Your task to perform on an android device: turn notification dots off Image 0: 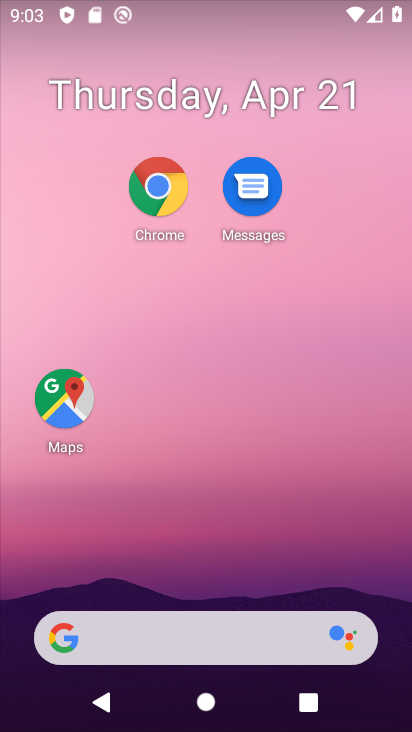
Step 0: drag from (209, 468) to (220, 151)
Your task to perform on an android device: turn notification dots off Image 1: 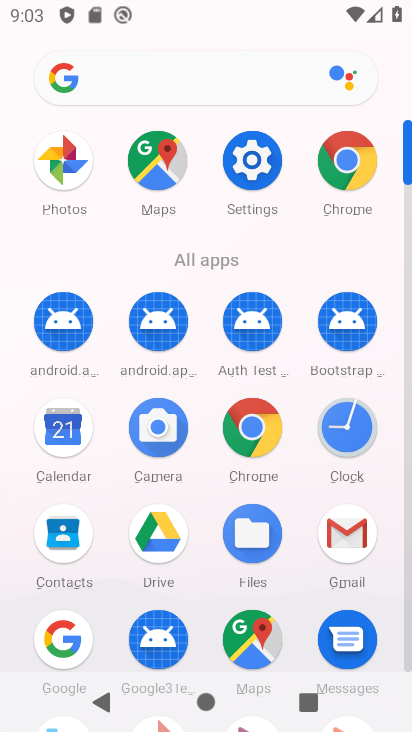
Step 1: click (259, 162)
Your task to perform on an android device: turn notification dots off Image 2: 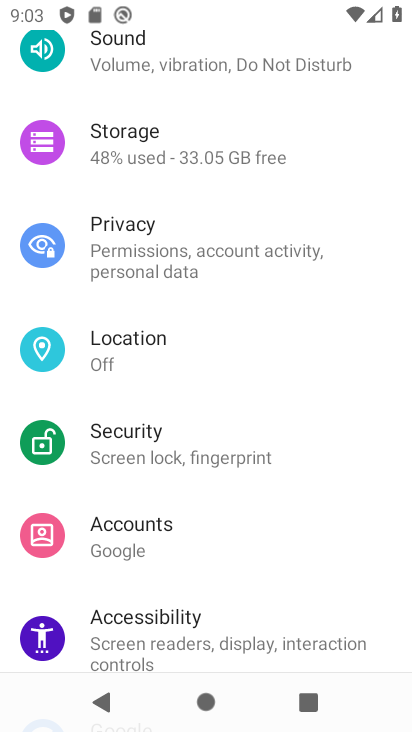
Step 2: drag from (205, 152) to (203, 456)
Your task to perform on an android device: turn notification dots off Image 3: 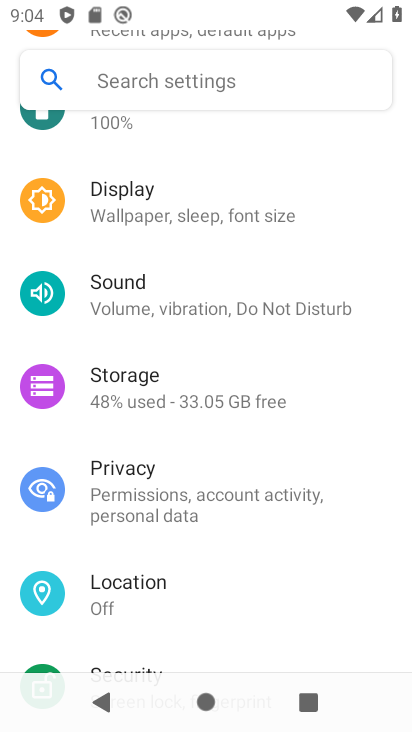
Step 3: drag from (232, 185) to (230, 486)
Your task to perform on an android device: turn notification dots off Image 4: 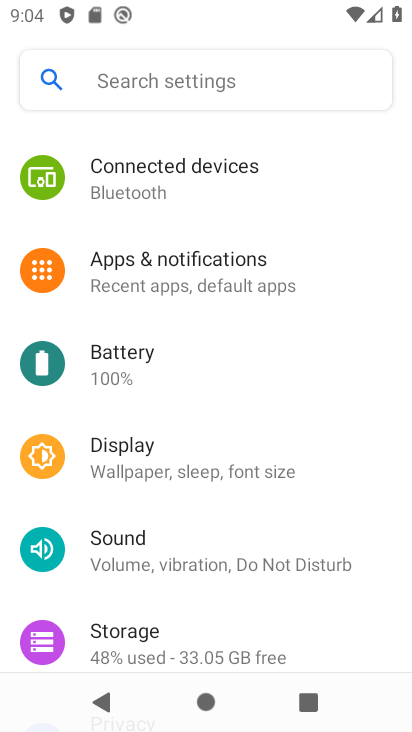
Step 4: click (214, 274)
Your task to perform on an android device: turn notification dots off Image 5: 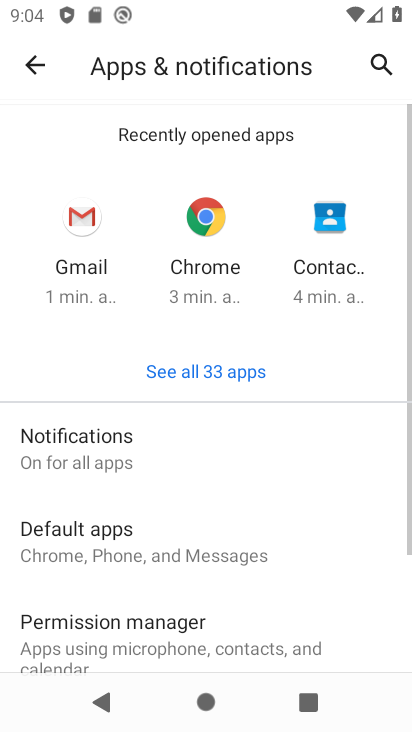
Step 5: click (156, 452)
Your task to perform on an android device: turn notification dots off Image 6: 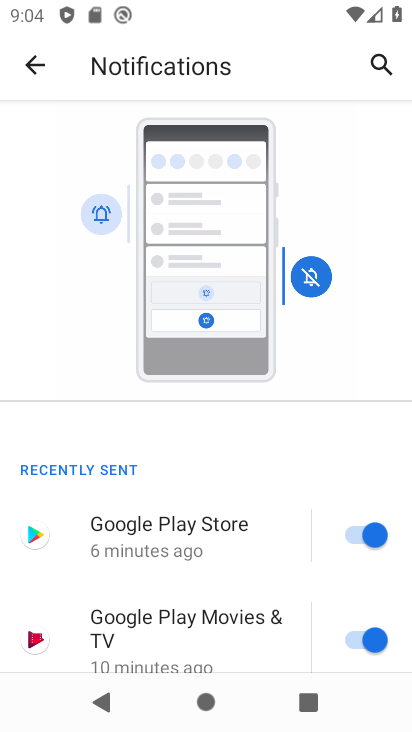
Step 6: drag from (197, 584) to (222, 72)
Your task to perform on an android device: turn notification dots off Image 7: 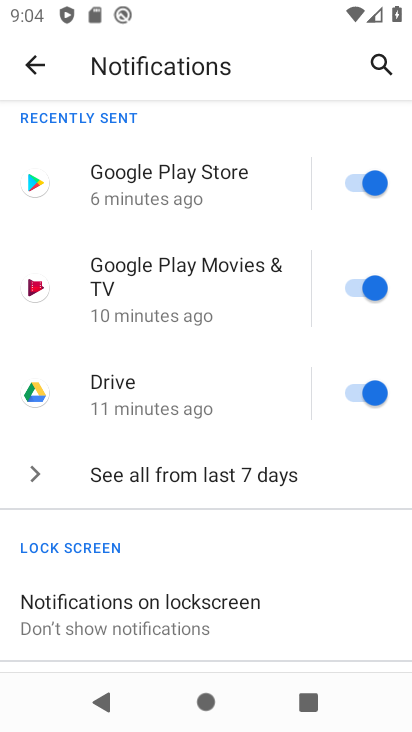
Step 7: drag from (174, 587) to (158, 163)
Your task to perform on an android device: turn notification dots off Image 8: 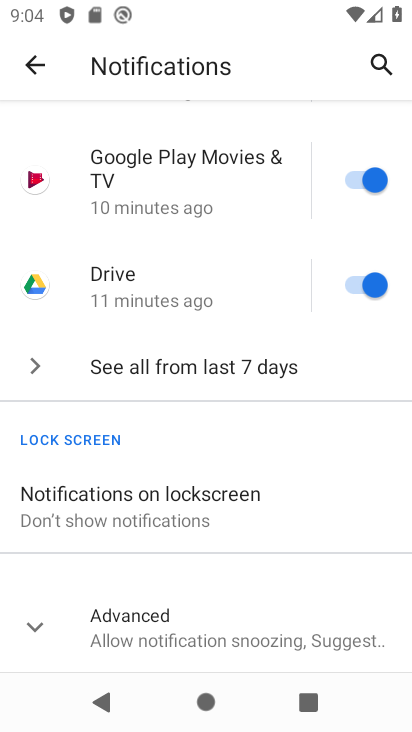
Step 8: click (198, 612)
Your task to perform on an android device: turn notification dots off Image 9: 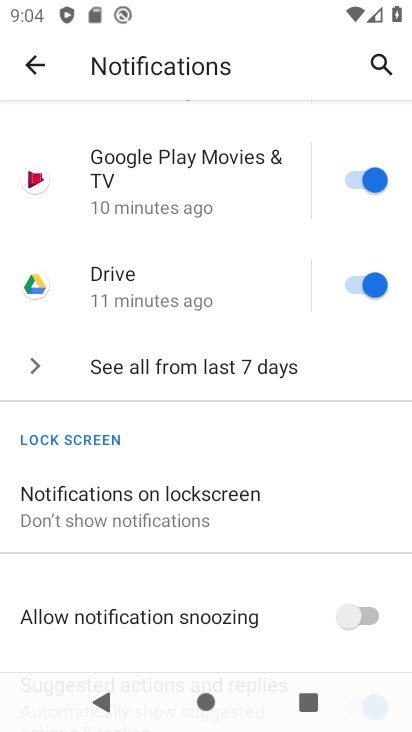
Step 9: drag from (195, 563) to (197, 284)
Your task to perform on an android device: turn notification dots off Image 10: 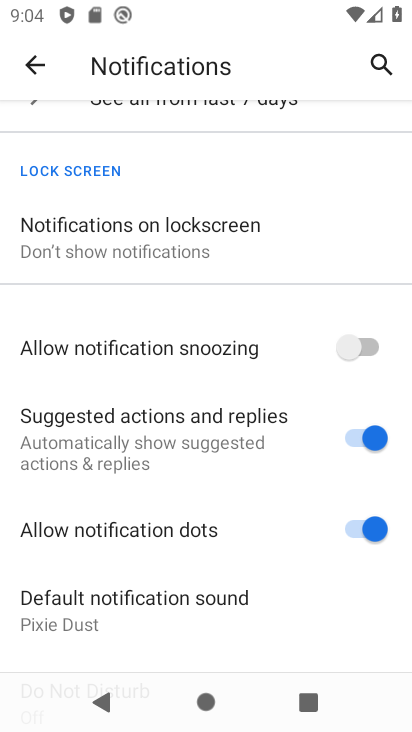
Step 10: click (371, 533)
Your task to perform on an android device: turn notification dots off Image 11: 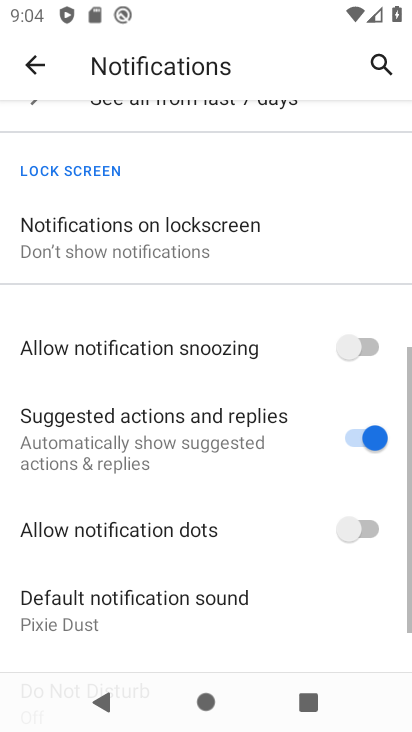
Step 11: task complete